Your task to perform on an android device: Open eBay Image 0: 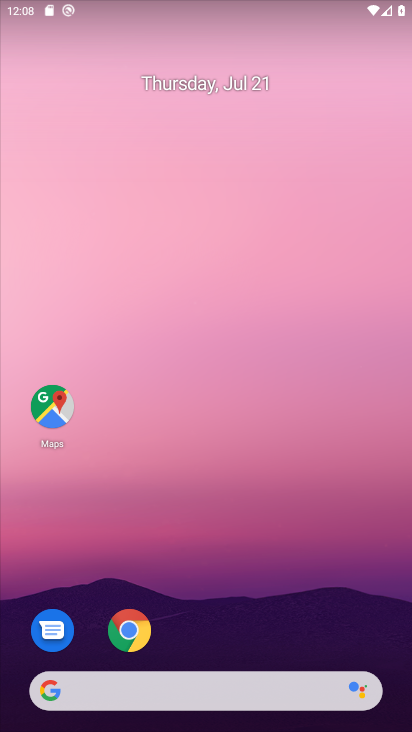
Step 0: drag from (183, 589) to (321, 18)
Your task to perform on an android device: Open eBay Image 1: 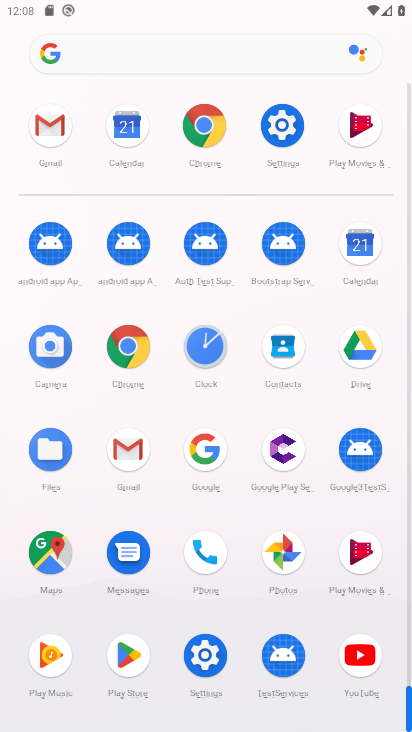
Step 1: click (147, 62)
Your task to perform on an android device: Open eBay Image 2: 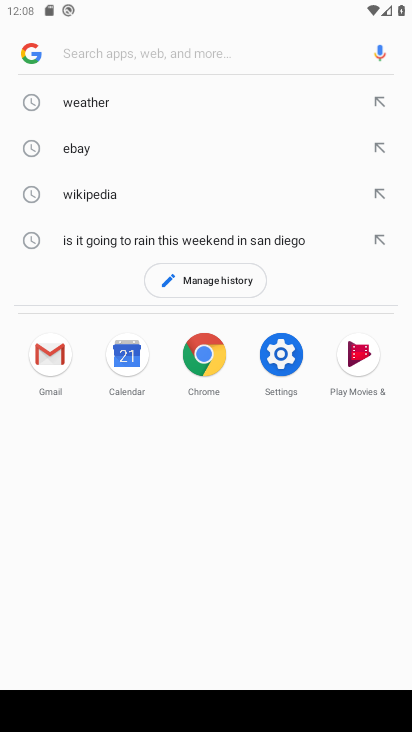
Step 2: type "eBay"
Your task to perform on an android device: Open eBay Image 3: 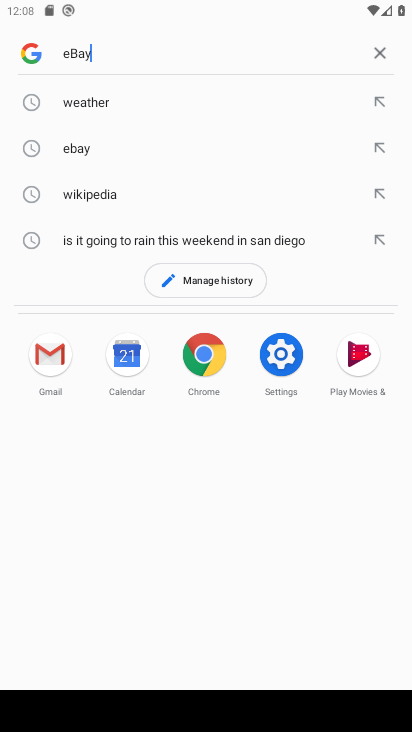
Step 3: type ""
Your task to perform on an android device: Open eBay Image 4: 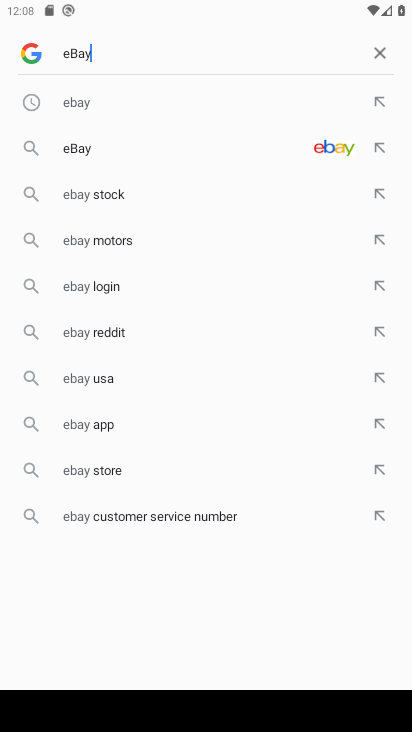
Step 4: click (126, 153)
Your task to perform on an android device: Open eBay Image 5: 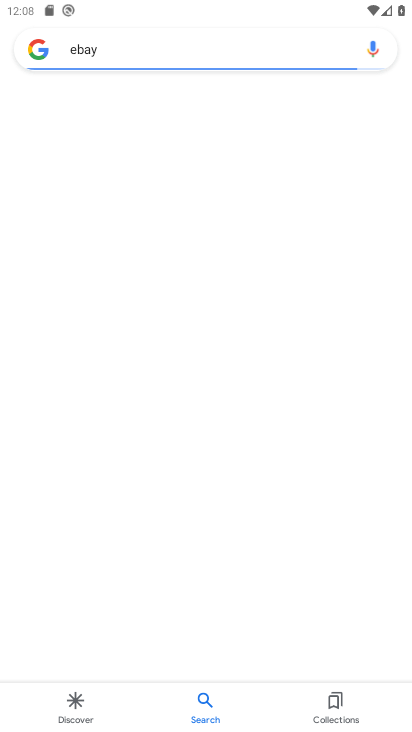
Step 5: task complete